Your task to perform on an android device: Open battery settings Image 0: 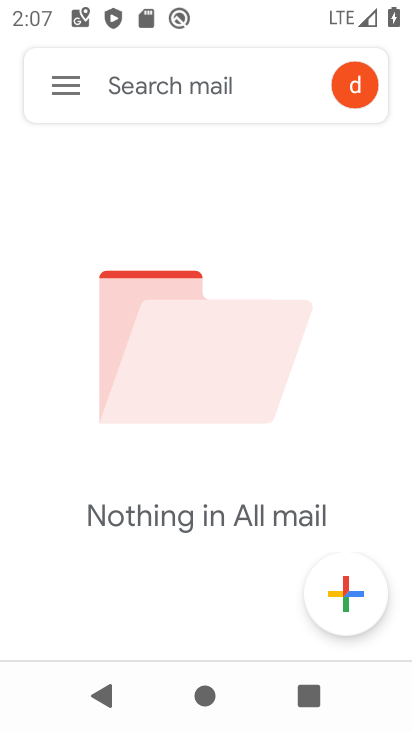
Step 0: press home button
Your task to perform on an android device: Open battery settings Image 1: 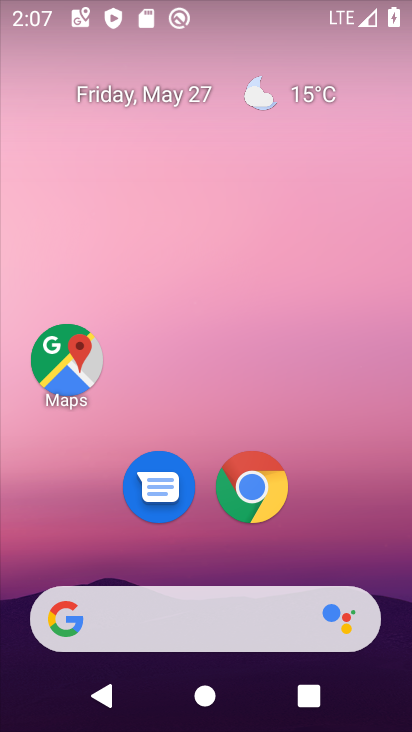
Step 1: drag from (367, 470) to (406, 227)
Your task to perform on an android device: Open battery settings Image 2: 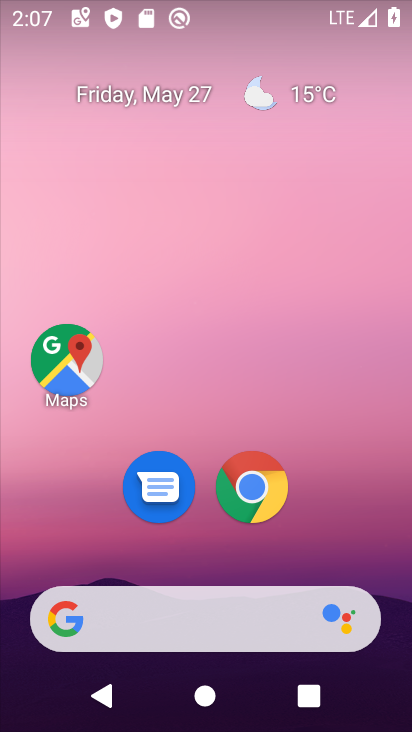
Step 2: drag from (330, 514) to (407, 62)
Your task to perform on an android device: Open battery settings Image 3: 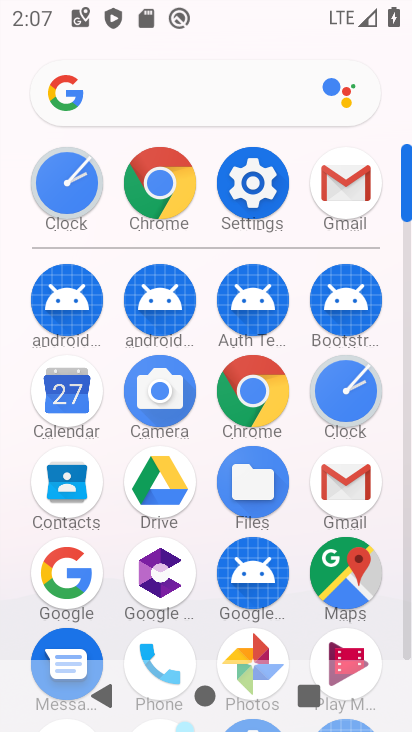
Step 3: click (268, 190)
Your task to perform on an android device: Open battery settings Image 4: 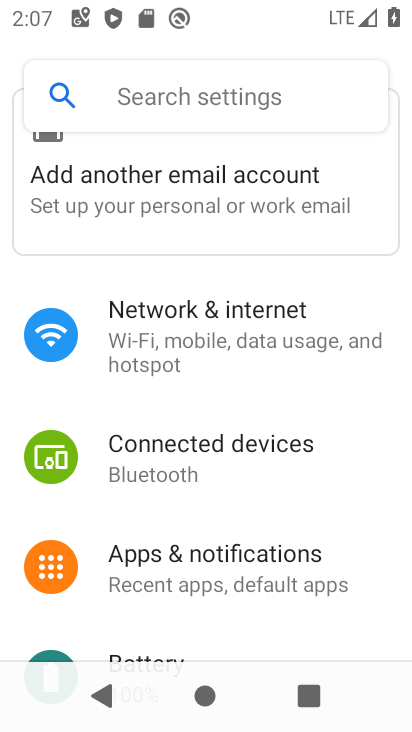
Step 4: drag from (172, 571) to (314, 202)
Your task to perform on an android device: Open battery settings Image 5: 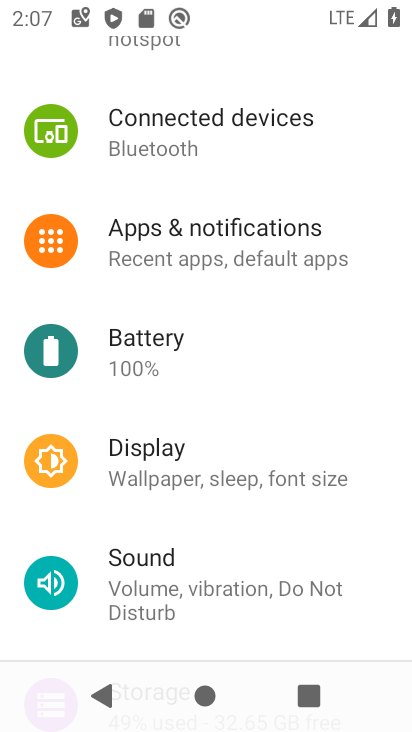
Step 5: click (216, 362)
Your task to perform on an android device: Open battery settings Image 6: 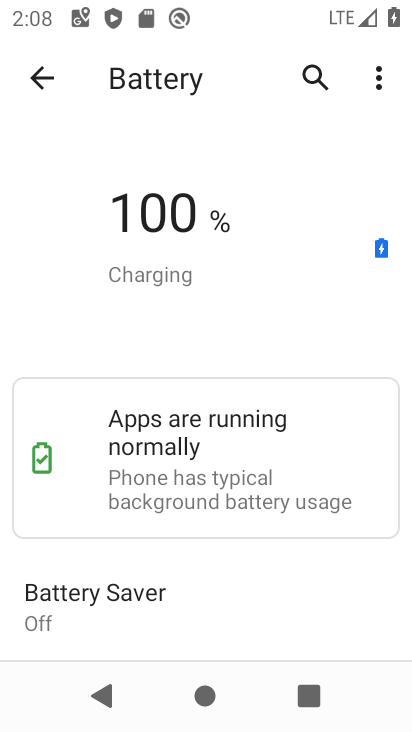
Step 6: task complete